Your task to perform on an android device: all mails in gmail Image 0: 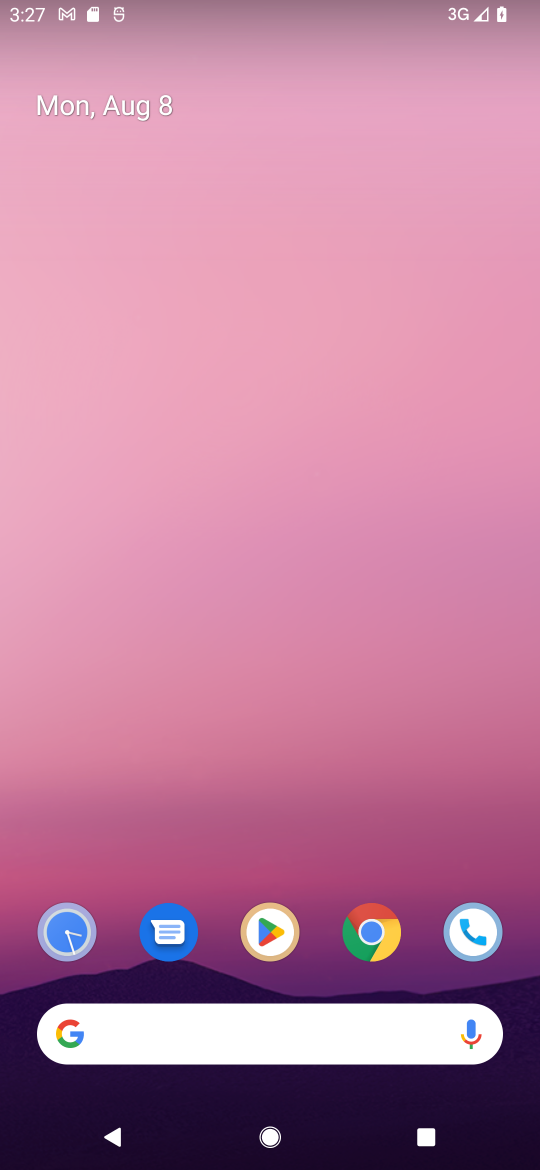
Step 0: drag from (228, 958) to (270, 1)
Your task to perform on an android device: all mails in gmail Image 1: 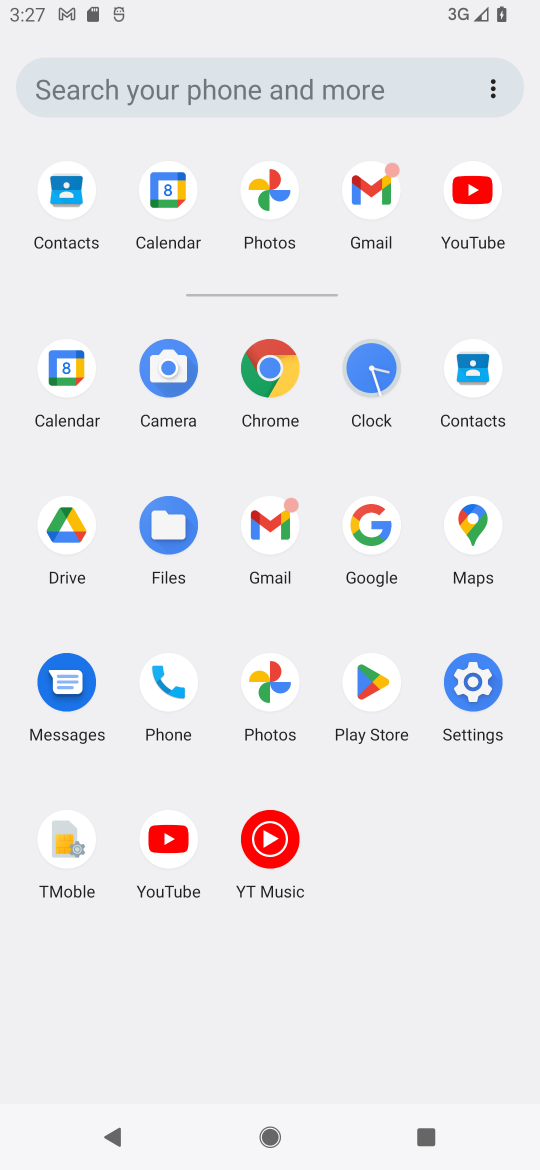
Step 1: click (384, 205)
Your task to perform on an android device: all mails in gmail Image 2: 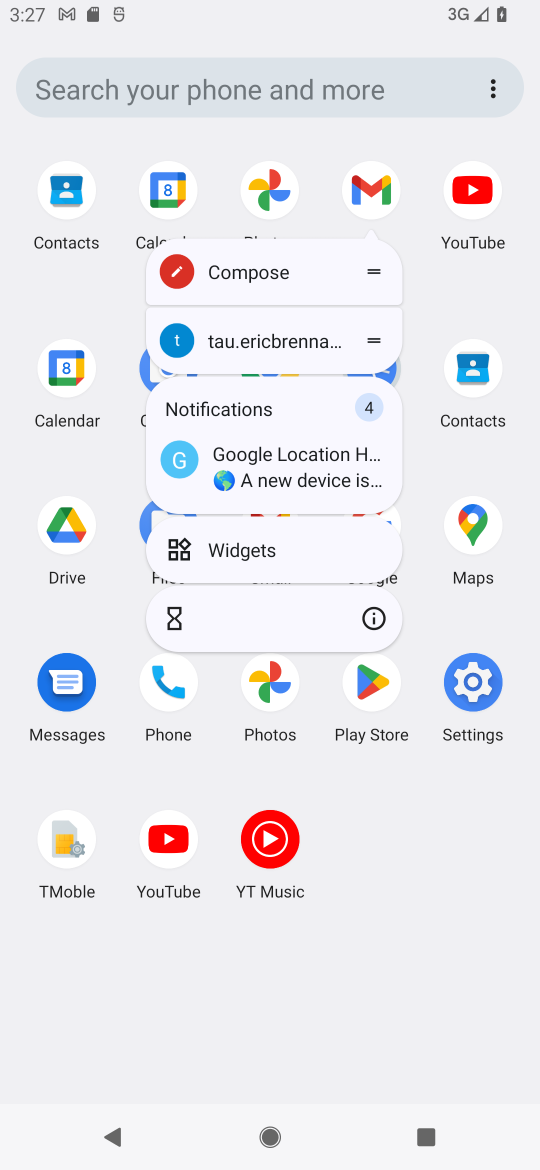
Step 2: click (375, 195)
Your task to perform on an android device: all mails in gmail Image 3: 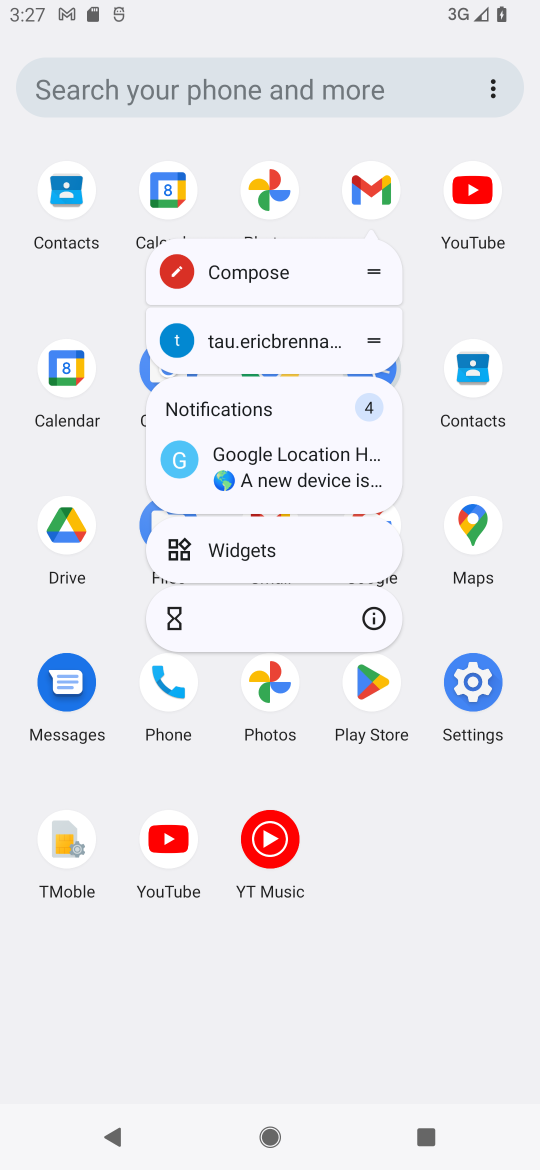
Step 3: click (377, 197)
Your task to perform on an android device: all mails in gmail Image 4: 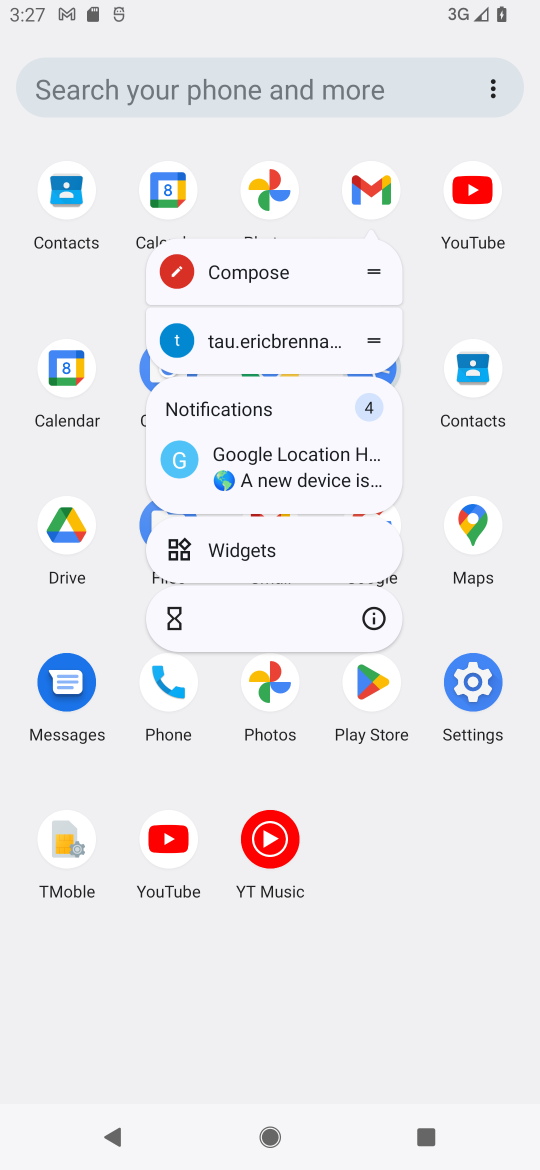
Step 4: click (377, 194)
Your task to perform on an android device: all mails in gmail Image 5: 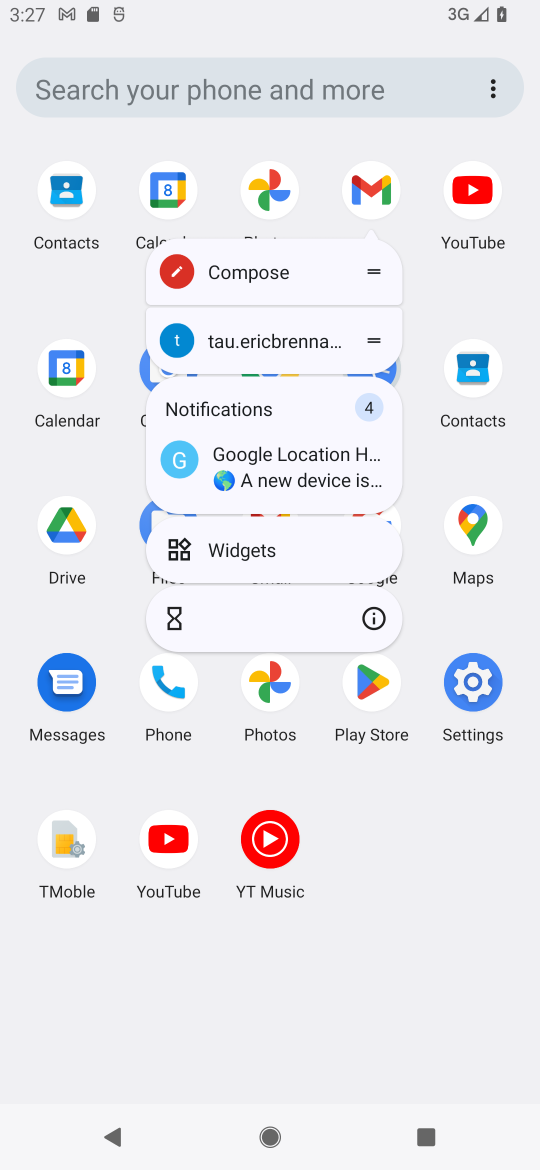
Step 5: click (377, 198)
Your task to perform on an android device: all mails in gmail Image 6: 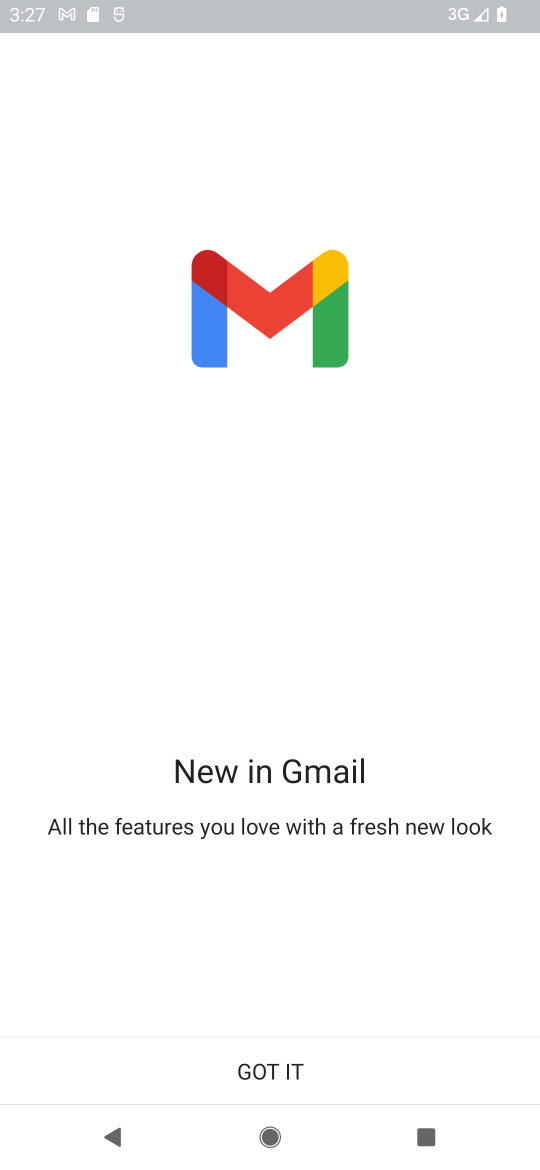
Step 6: click (254, 1059)
Your task to perform on an android device: all mails in gmail Image 7: 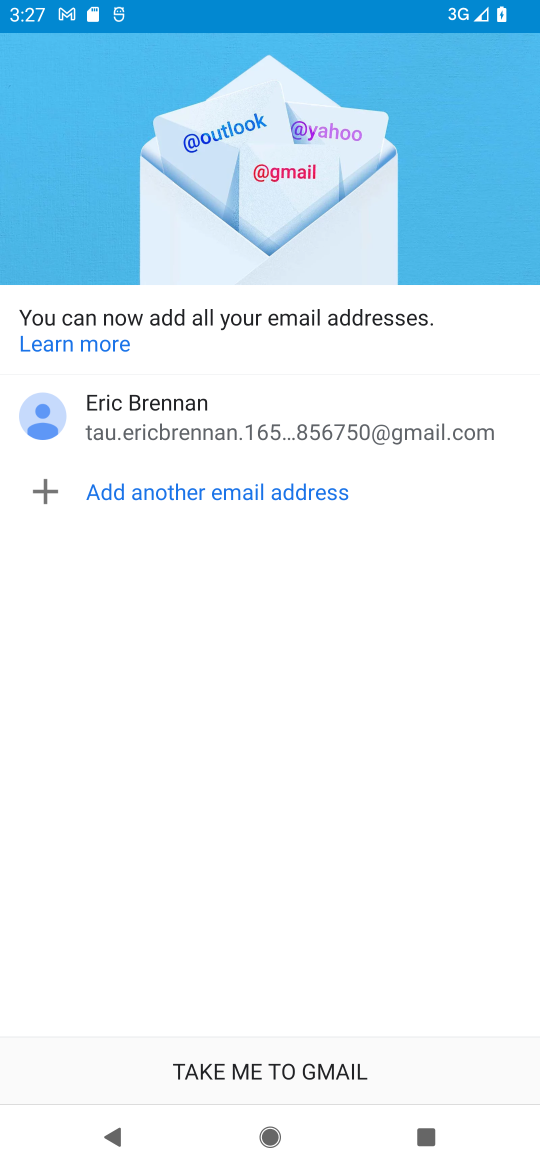
Step 7: click (254, 1059)
Your task to perform on an android device: all mails in gmail Image 8: 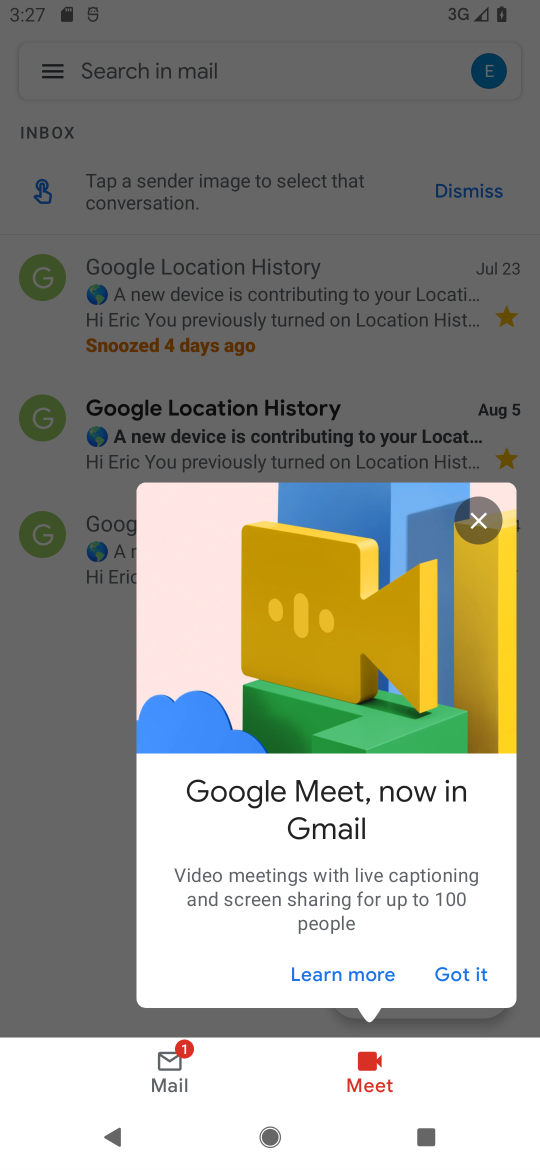
Step 8: click (484, 526)
Your task to perform on an android device: all mails in gmail Image 9: 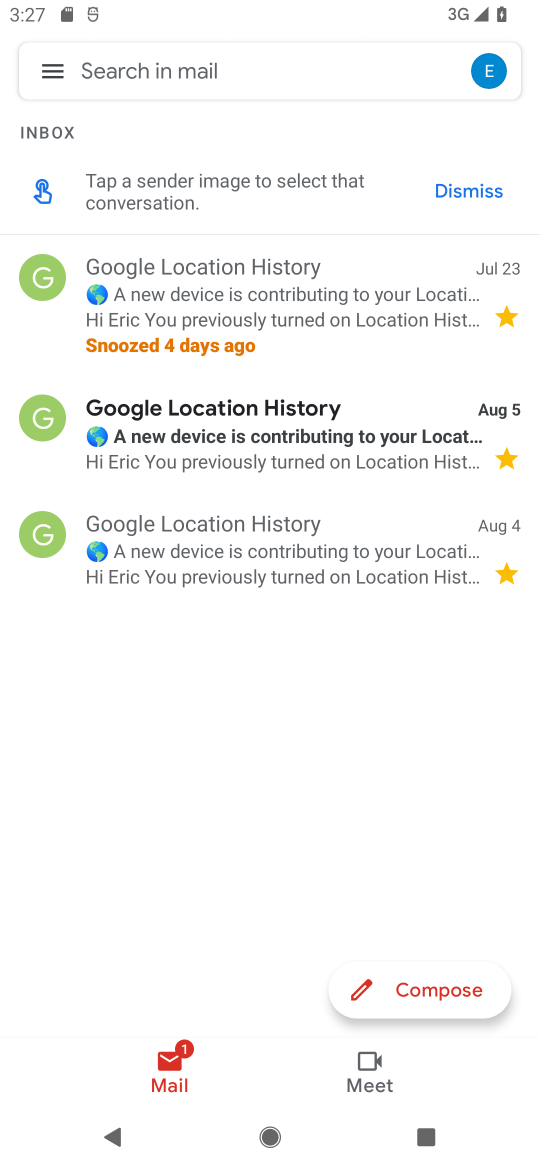
Step 9: click (62, 82)
Your task to perform on an android device: all mails in gmail Image 10: 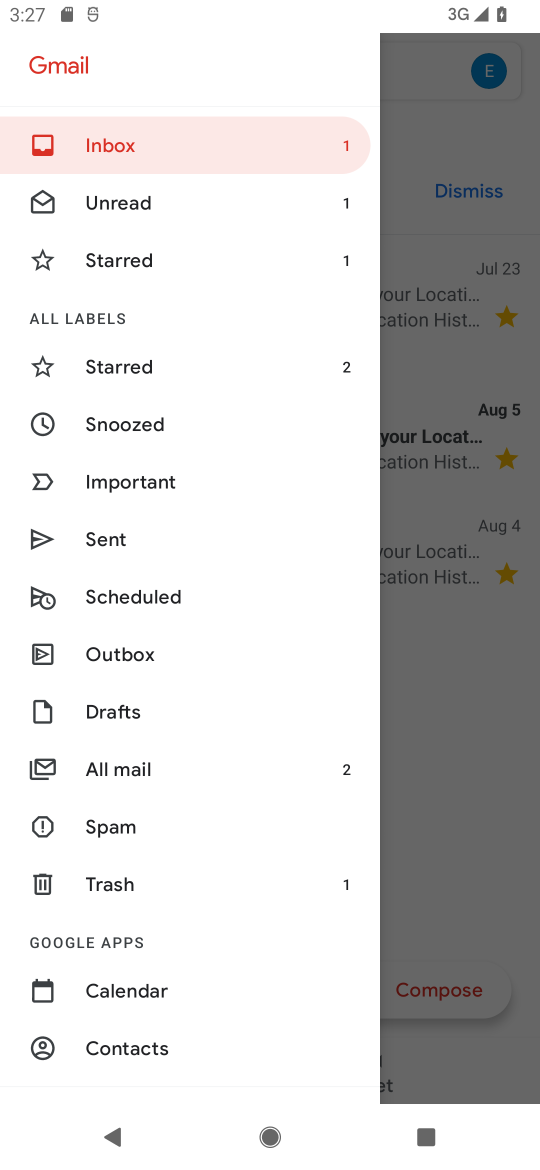
Step 10: click (59, 771)
Your task to perform on an android device: all mails in gmail Image 11: 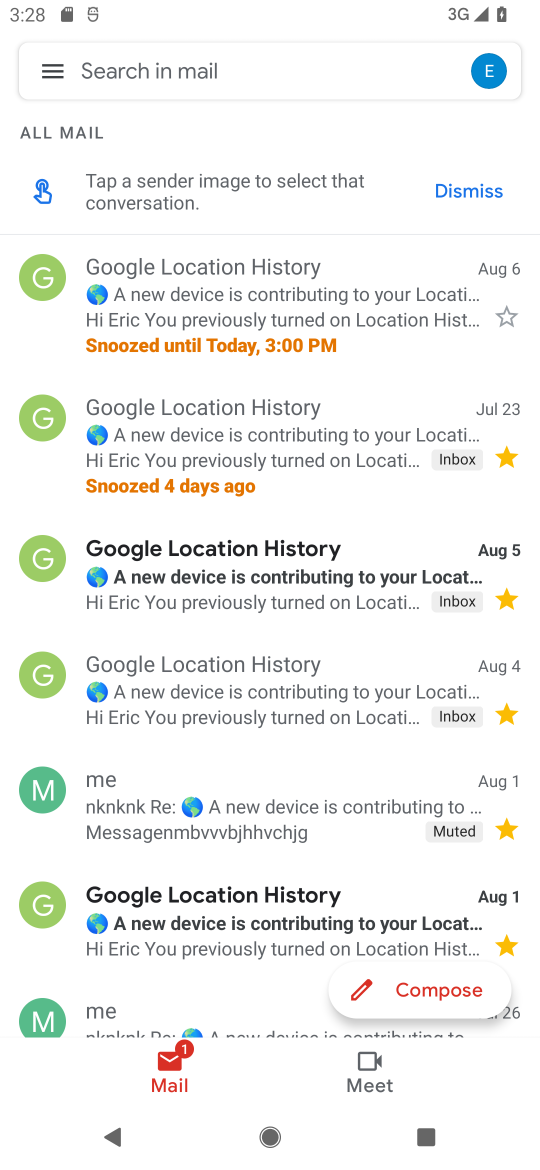
Step 11: task complete